Your task to perform on an android device: allow notifications from all sites in the chrome app Image 0: 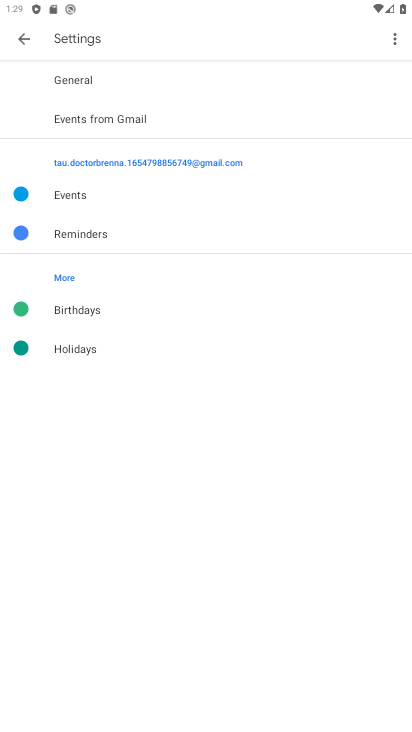
Step 0: press home button
Your task to perform on an android device: allow notifications from all sites in the chrome app Image 1: 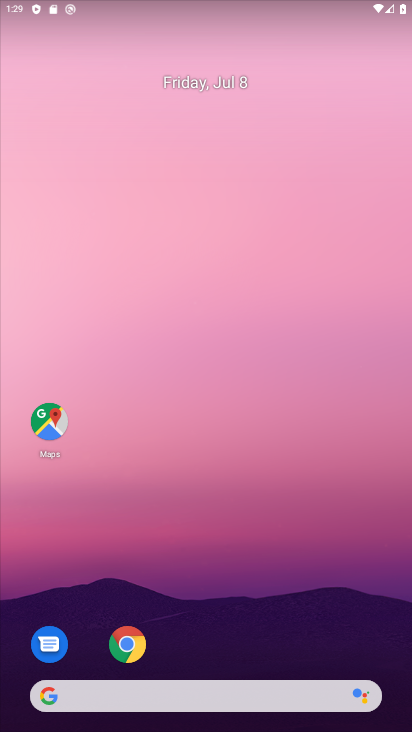
Step 1: click (127, 647)
Your task to perform on an android device: allow notifications from all sites in the chrome app Image 2: 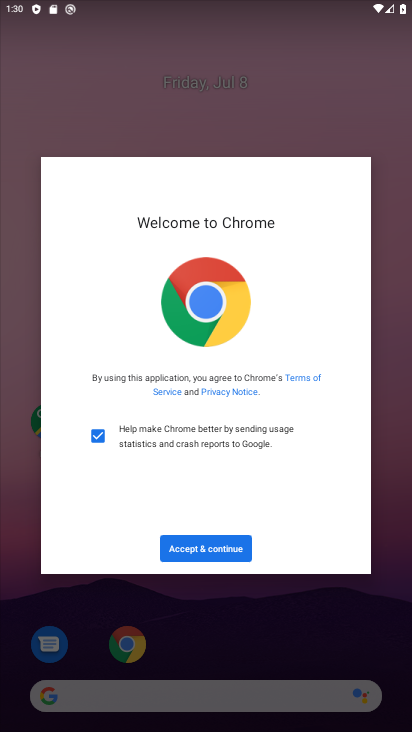
Step 2: click (206, 558)
Your task to perform on an android device: allow notifications from all sites in the chrome app Image 3: 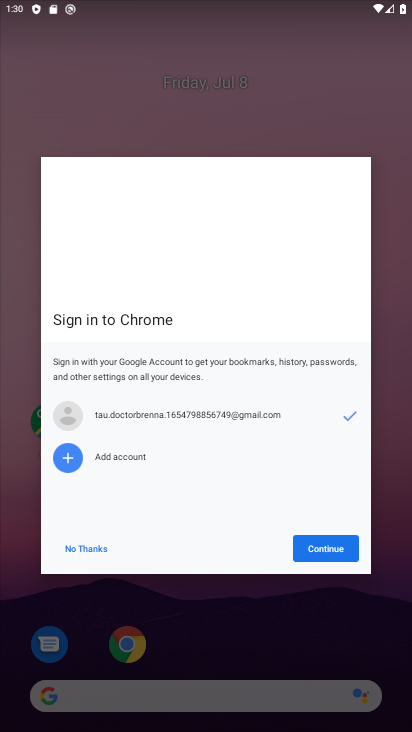
Step 3: click (336, 544)
Your task to perform on an android device: allow notifications from all sites in the chrome app Image 4: 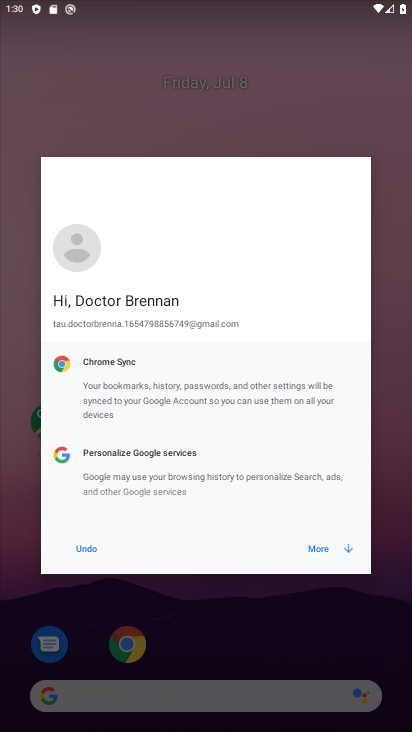
Step 4: click (319, 555)
Your task to perform on an android device: allow notifications from all sites in the chrome app Image 5: 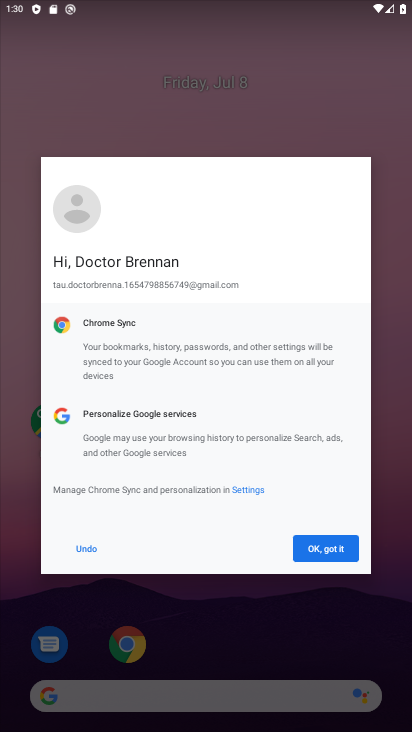
Step 5: click (319, 555)
Your task to perform on an android device: allow notifications from all sites in the chrome app Image 6: 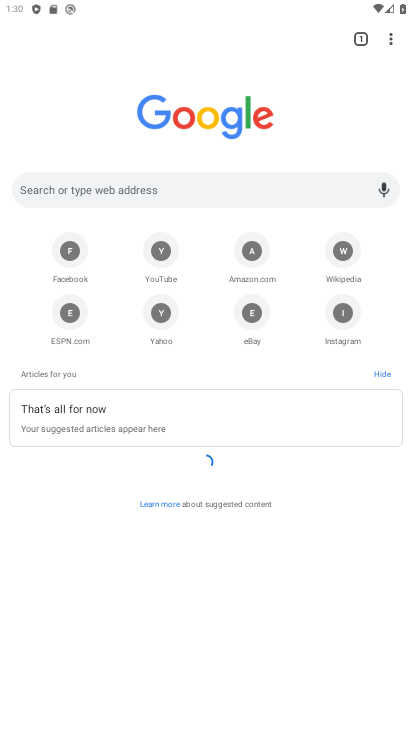
Step 6: click (386, 36)
Your task to perform on an android device: allow notifications from all sites in the chrome app Image 7: 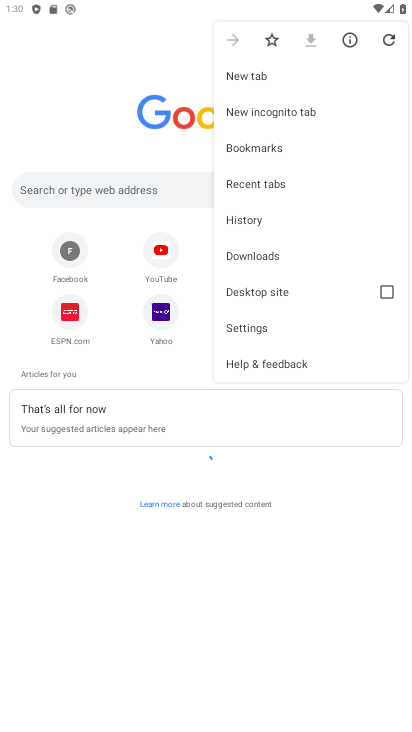
Step 7: click (246, 333)
Your task to perform on an android device: allow notifications from all sites in the chrome app Image 8: 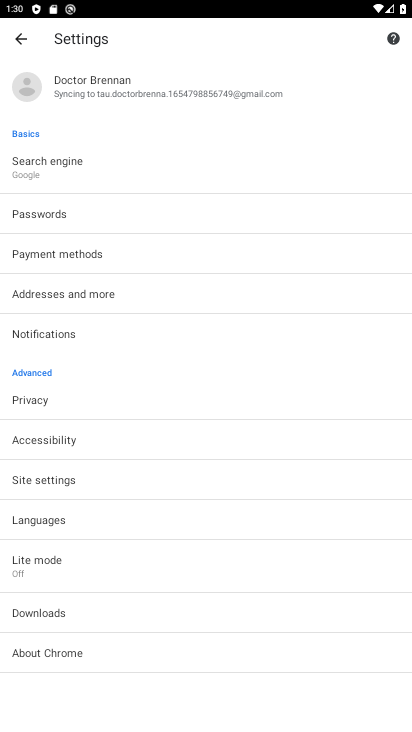
Step 8: click (75, 485)
Your task to perform on an android device: allow notifications from all sites in the chrome app Image 9: 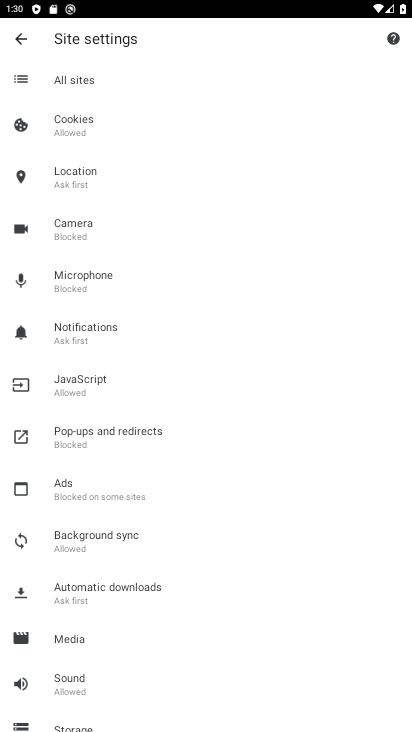
Step 9: click (106, 338)
Your task to perform on an android device: allow notifications from all sites in the chrome app Image 10: 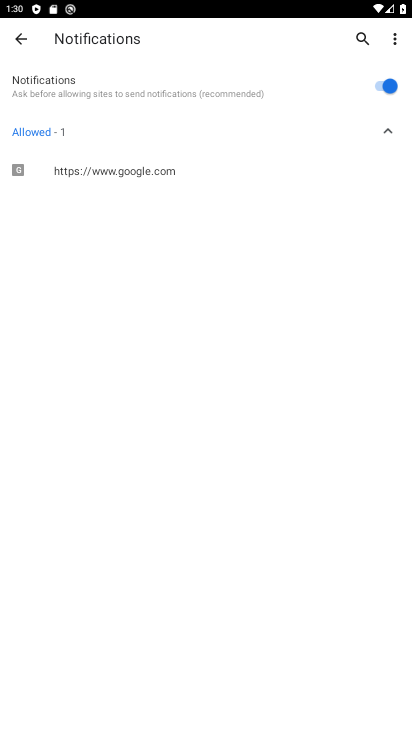
Step 10: task complete